Your task to perform on an android device: turn off picture-in-picture Image 0: 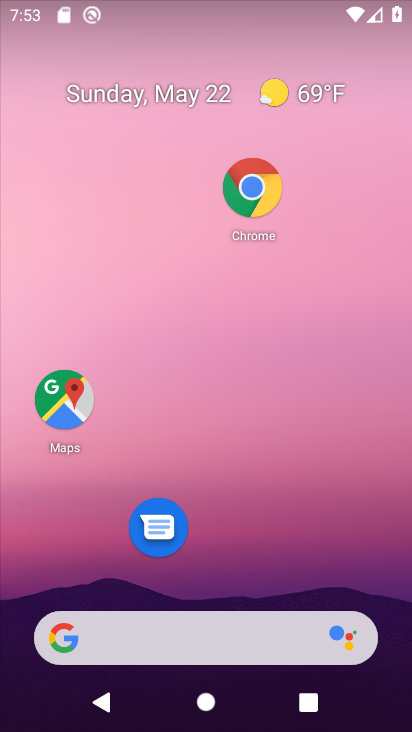
Step 0: click (249, 186)
Your task to perform on an android device: turn off picture-in-picture Image 1: 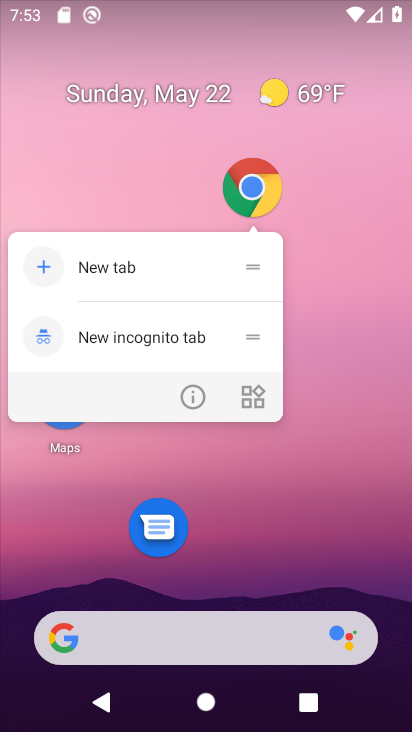
Step 1: click (195, 401)
Your task to perform on an android device: turn off picture-in-picture Image 2: 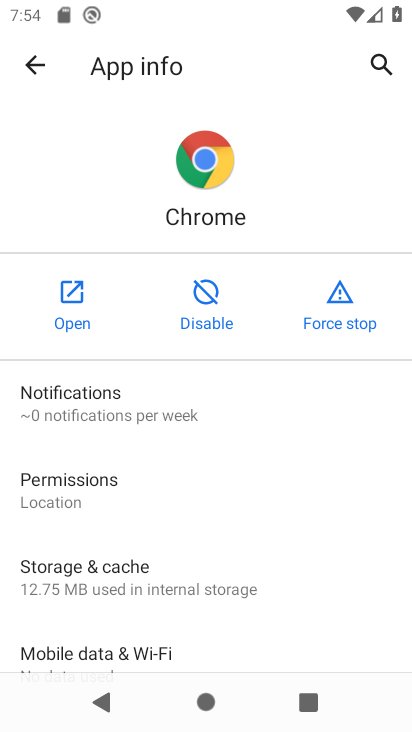
Step 2: drag from (153, 633) to (144, 90)
Your task to perform on an android device: turn off picture-in-picture Image 3: 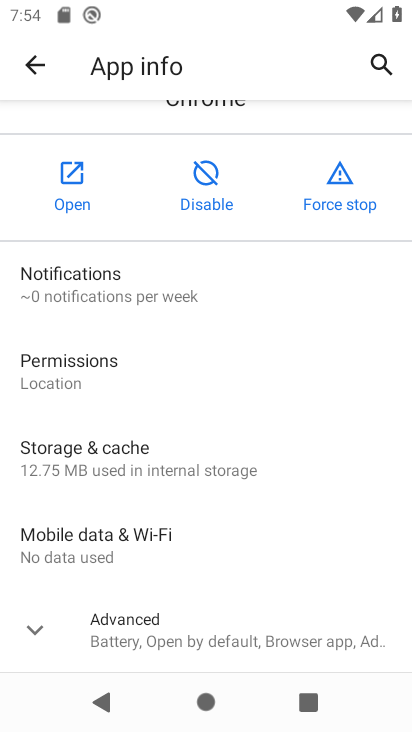
Step 3: click (36, 621)
Your task to perform on an android device: turn off picture-in-picture Image 4: 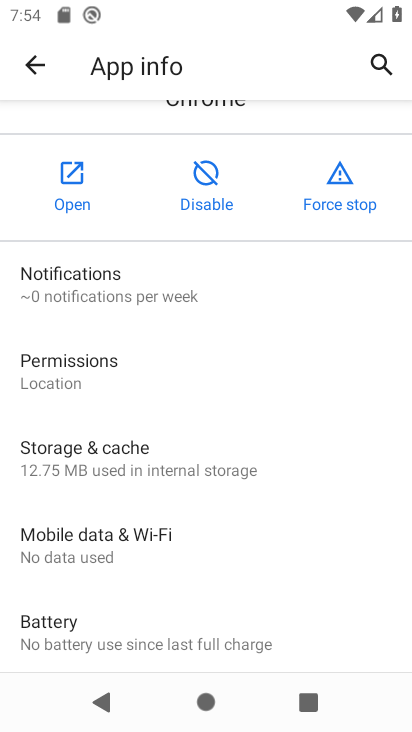
Step 4: drag from (218, 618) to (221, 92)
Your task to perform on an android device: turn off picture-in-picture Image 5: 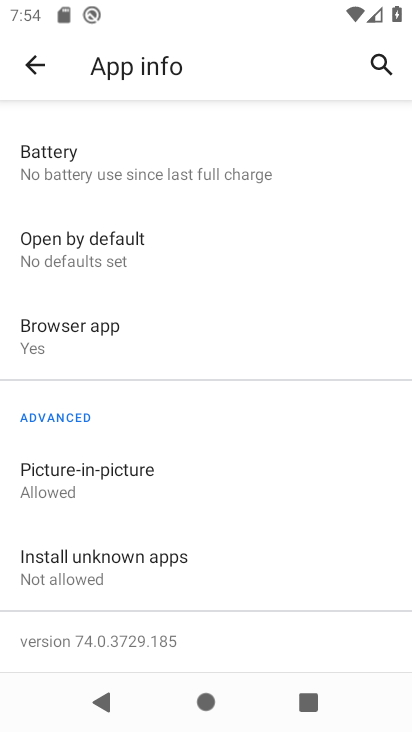
Step 5: click (89, 481)
Your task to perform on an android device: turn off picture-in-picture Image 6: 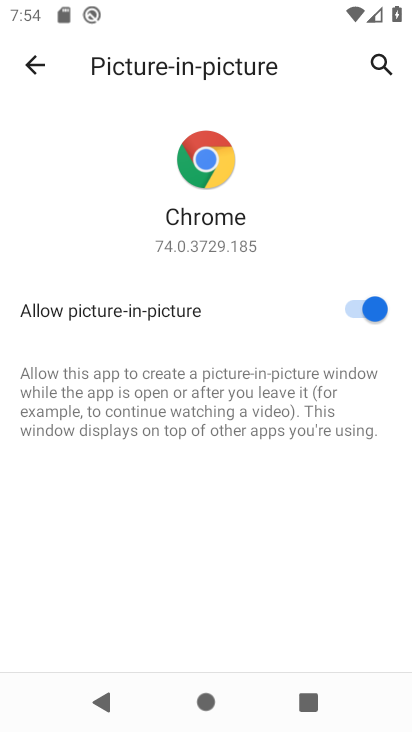
Step 6: click (354, 310)
Your task to perform on an android device: turn off picture-in-picture Image 7: 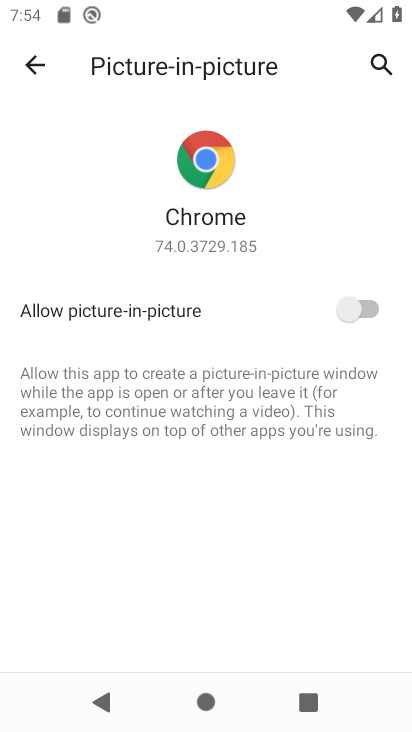
Step 7: task complete